Your task to perform on an android device: Open Google Chrome and open the bookmarks view Image 0: 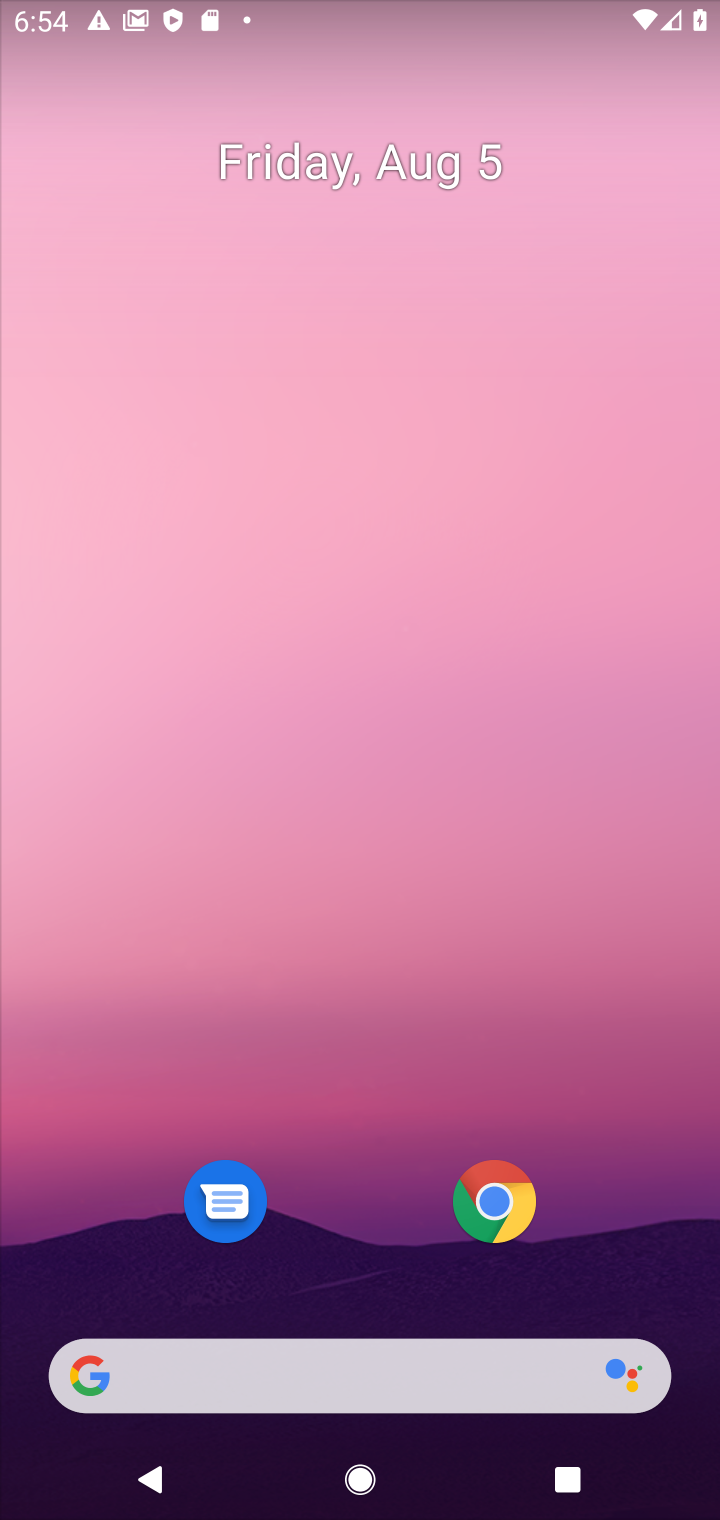
Step 0: press home button
Your task to perform on an android device: Open Google Chrome and open the bookmarks view Image 1: 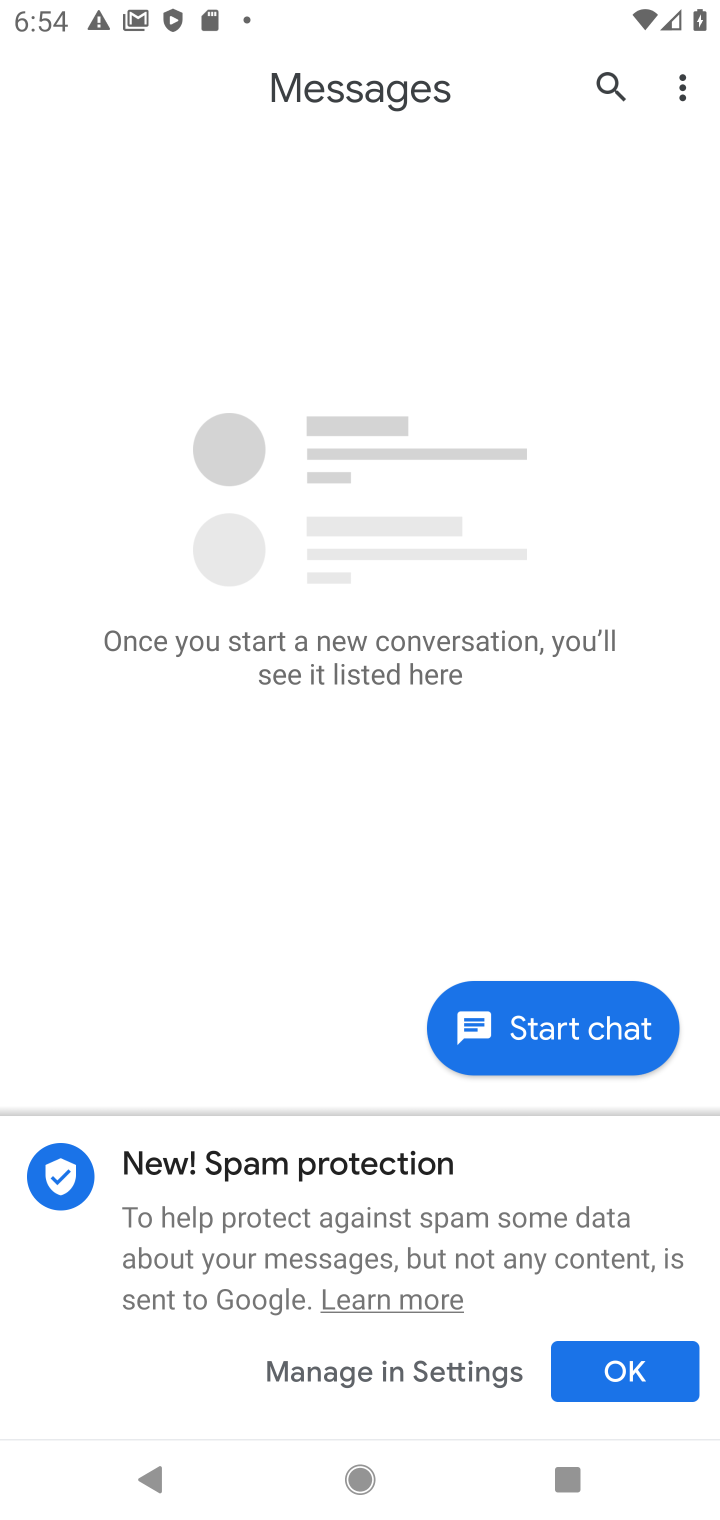
Step 1: click (638, 403)
Your task to perform on an android device: Open Google Chrome and open the bookmarks view Image 2: 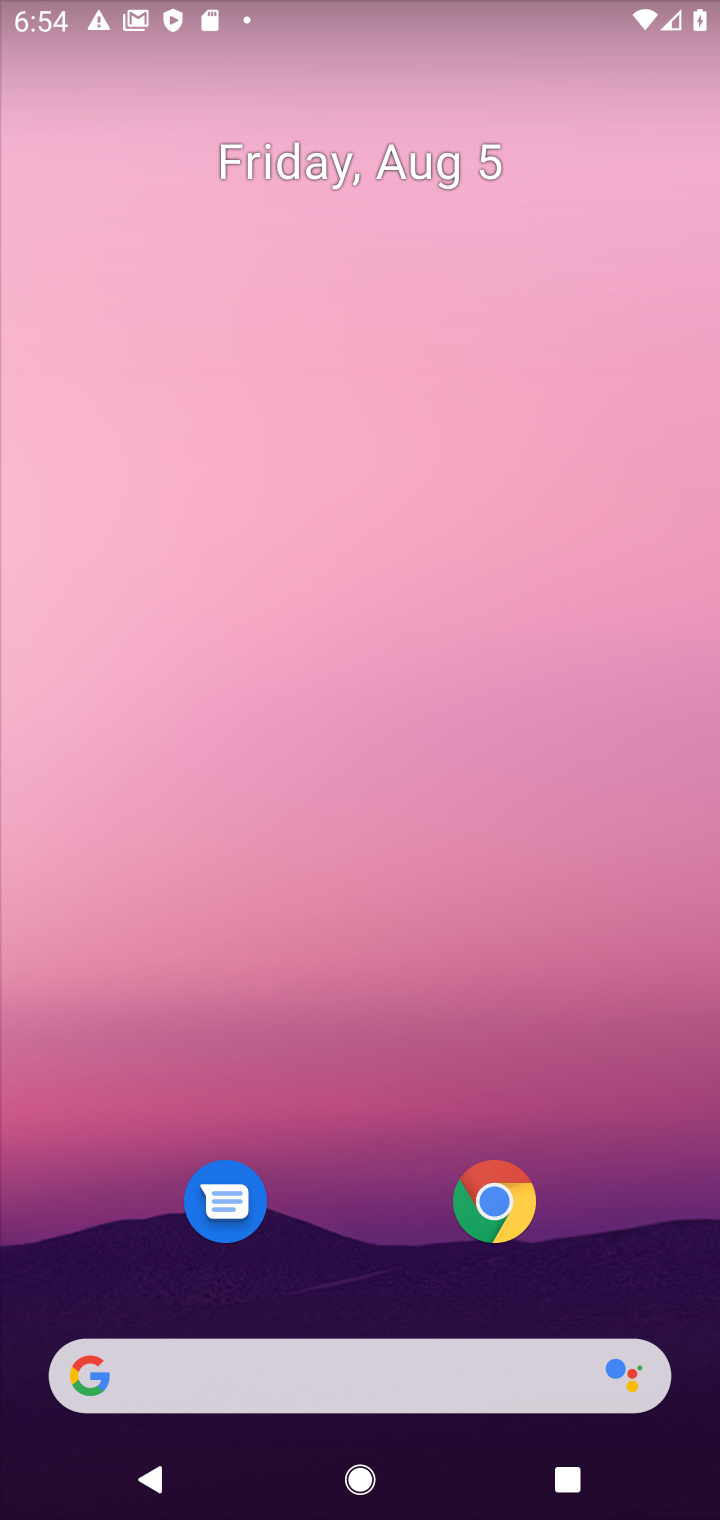
Step 2: drag from (308, 1427) to (486, 251)
Your task to perform on an android device: Open Google Chrome and open the bookmarks view Image 3: 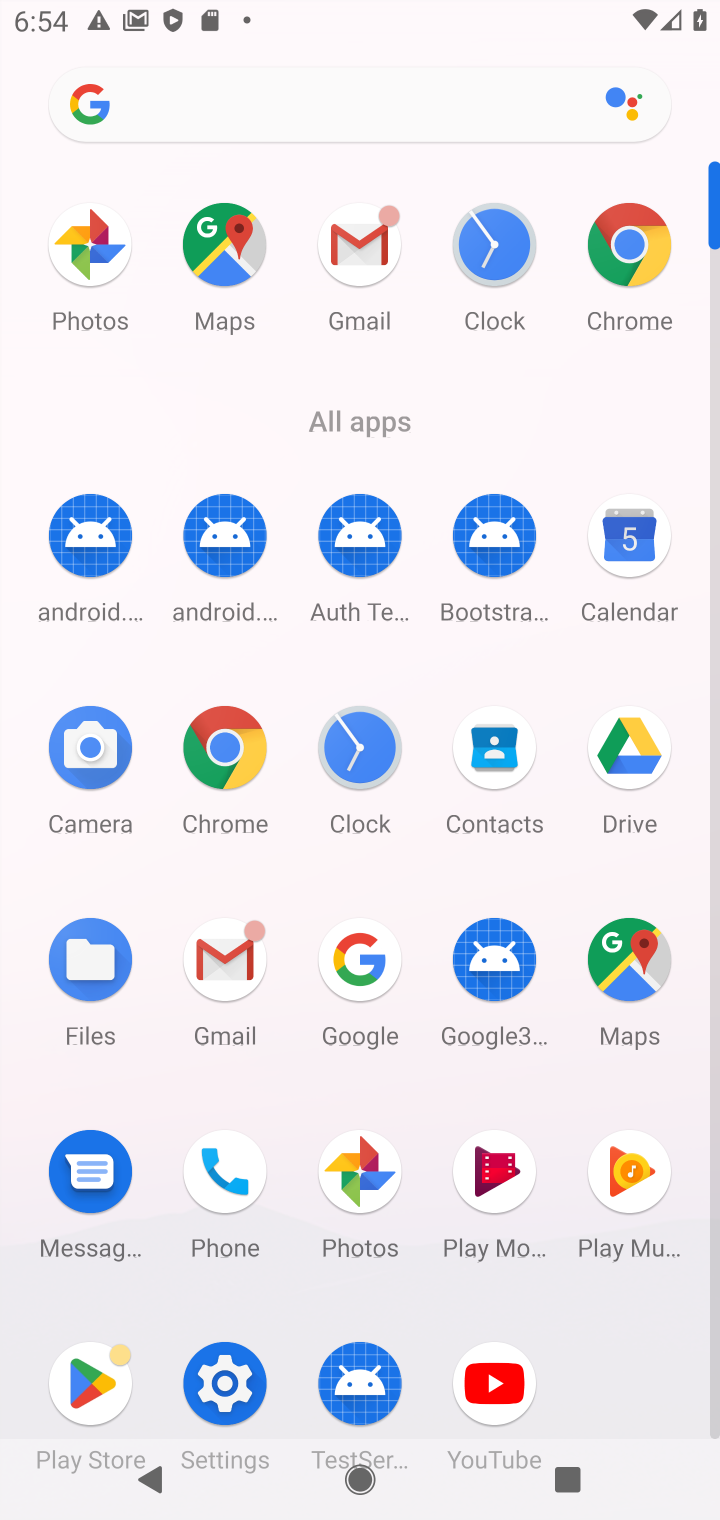
Step 3: click (622, 259)
Your task to perform on an android device: Open Google Chrome and open the bookmarks view Image 4: 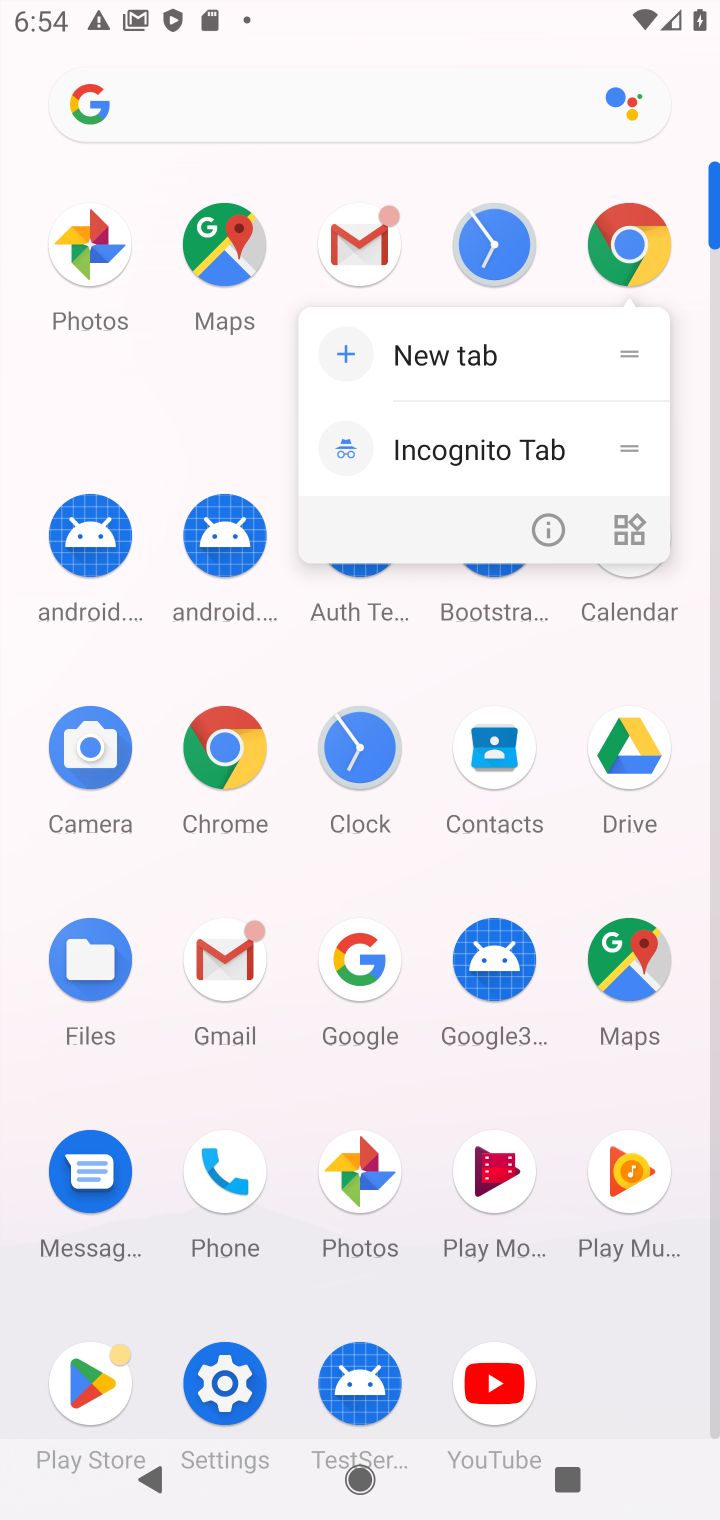
Step 4: click (635, 265)
Your task to perform on an android device: Open Google Chrome and open the bookmarks view Image 5: 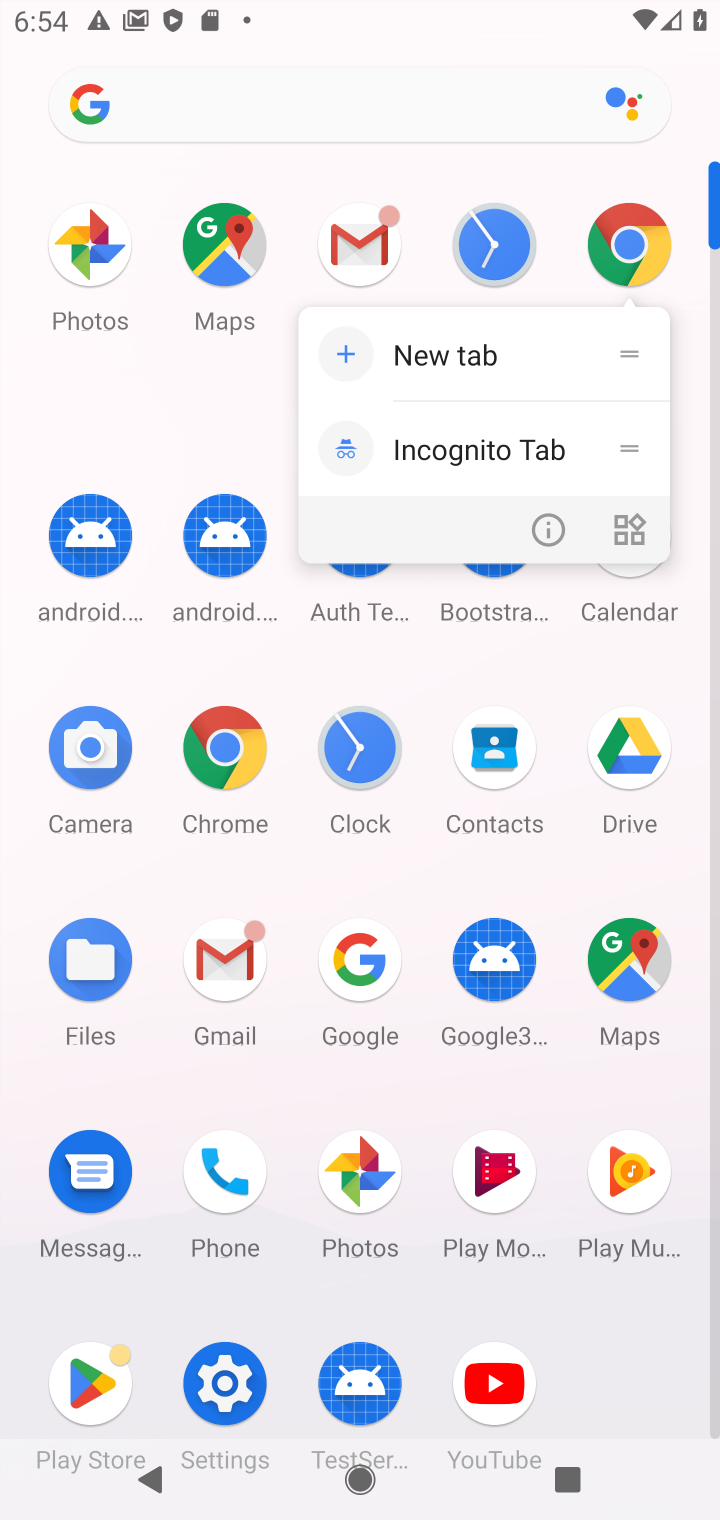
Step 5: click (637, 244)
Your task to perform on an android device: Open Google Chrome and open the bookmarks view Image 6: 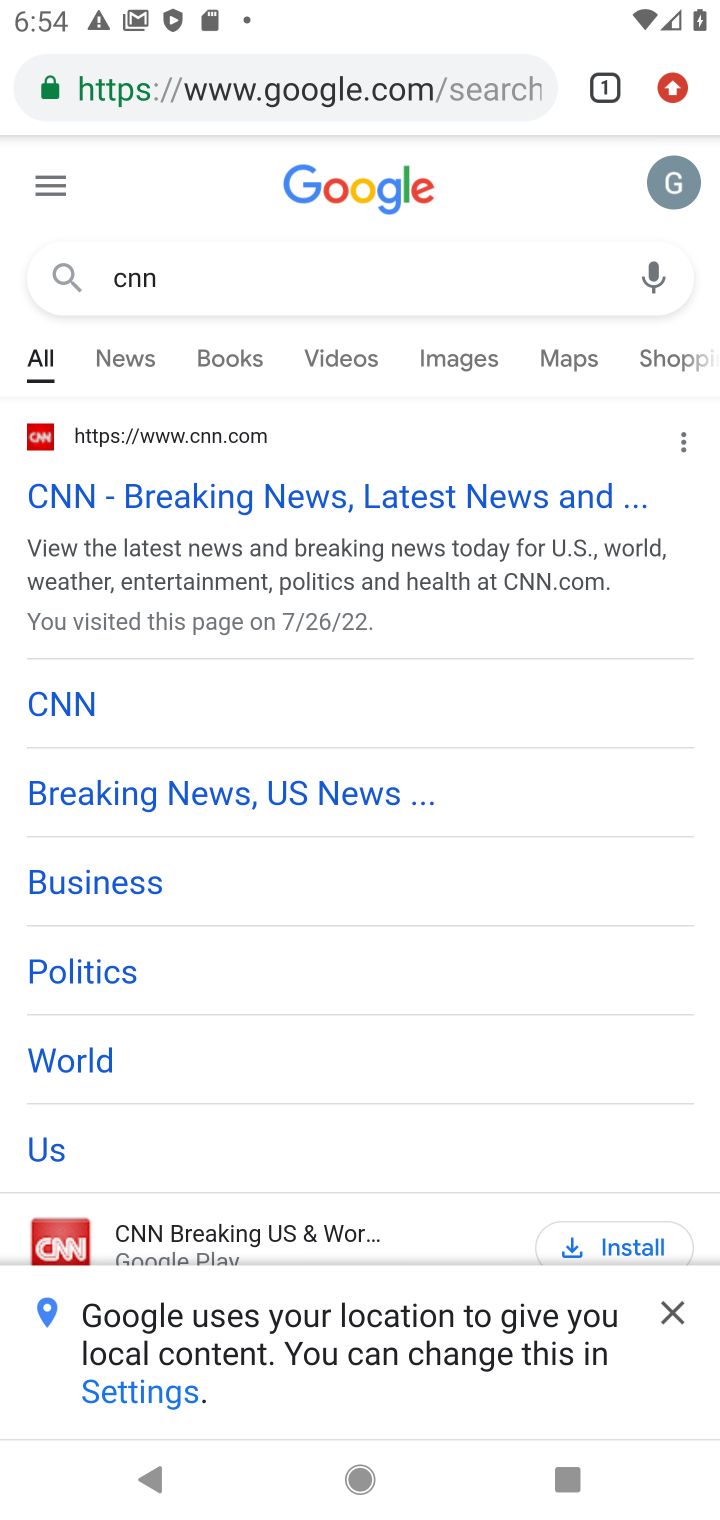
Step 6: click (326, 255)
Your task to perform on an android device: Open Google Chrome and open the bookmarks view Image 7: 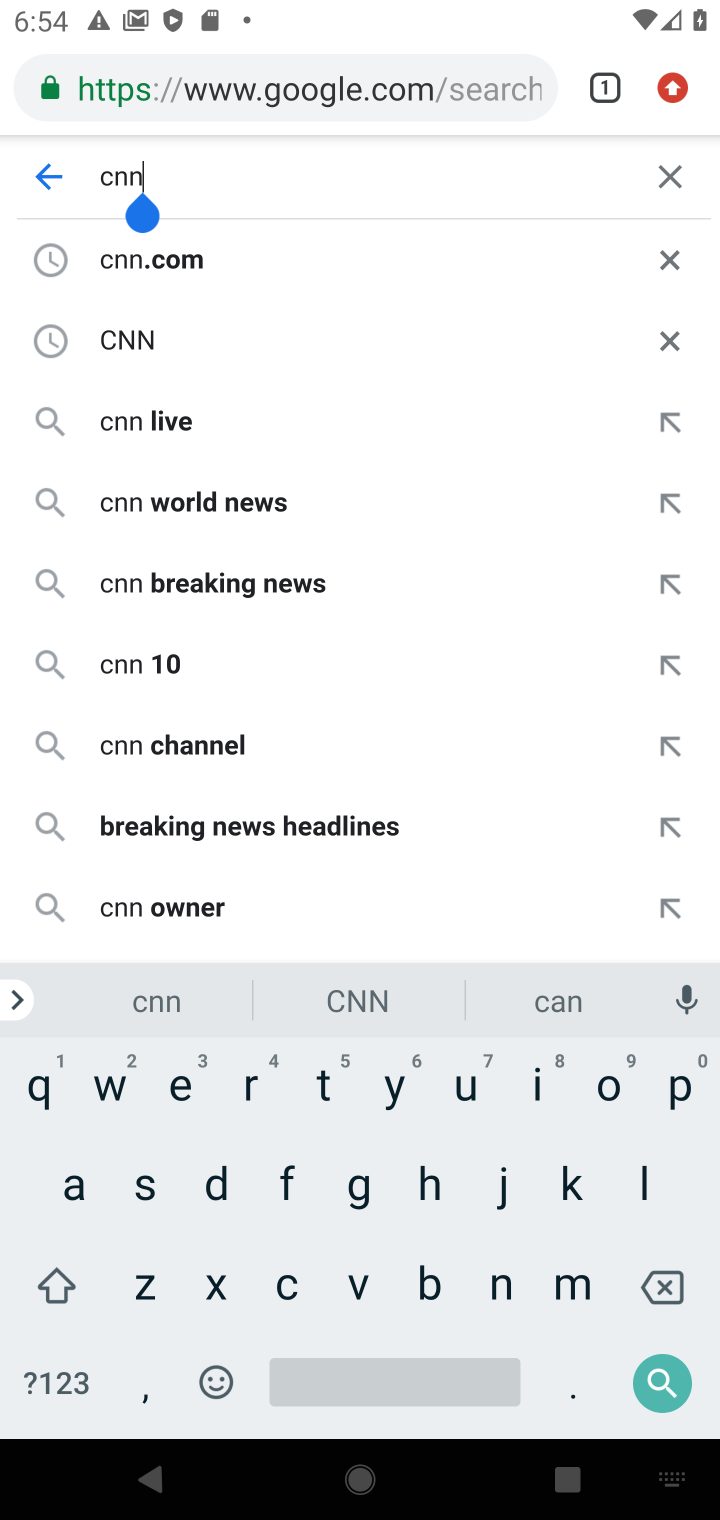
Step 7: click (690, 67)
Your task to perform on an android device: Open Google Chrome and open the bookmarks view Image 8: 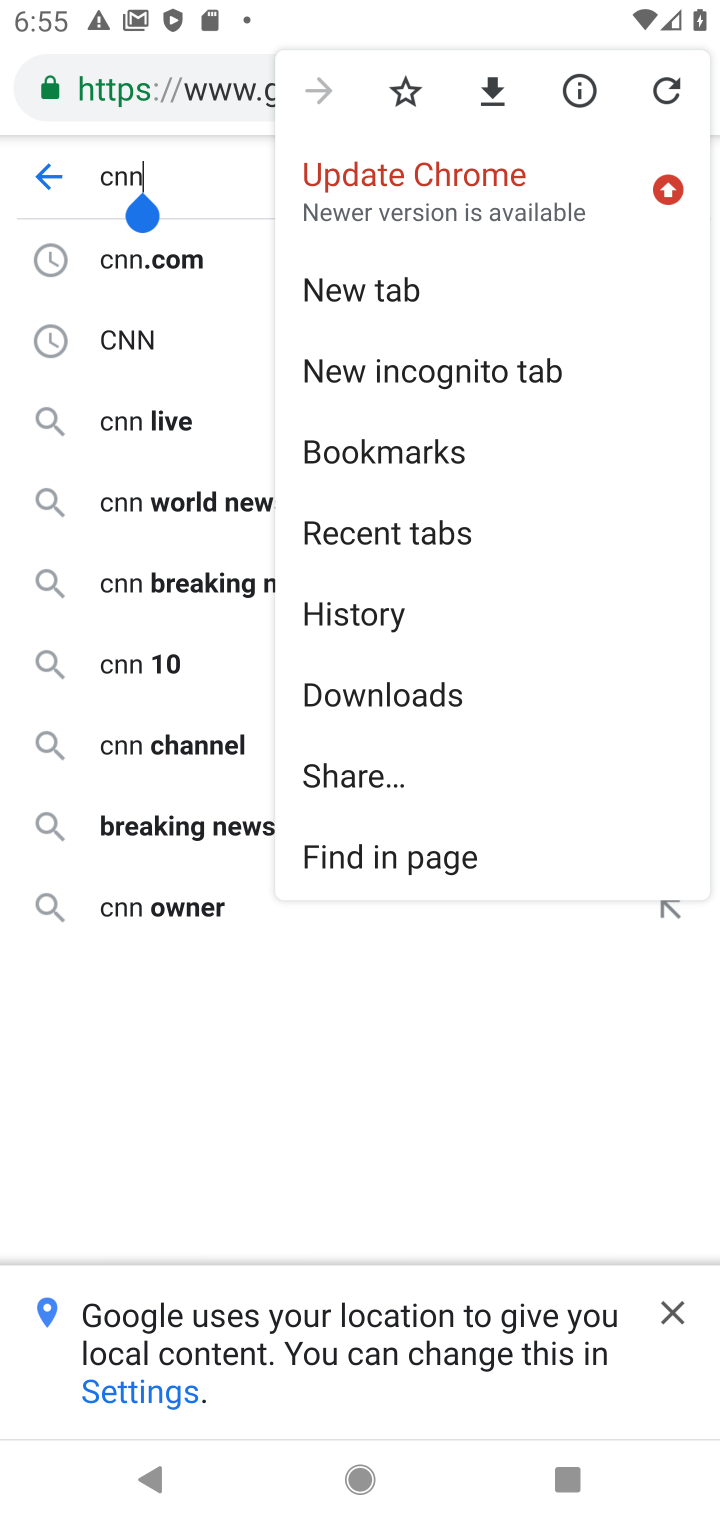
Step 8: click (412, 463)
Your task to perform on an android device: Open Google Chrome and open the bookmarks view Image 9: 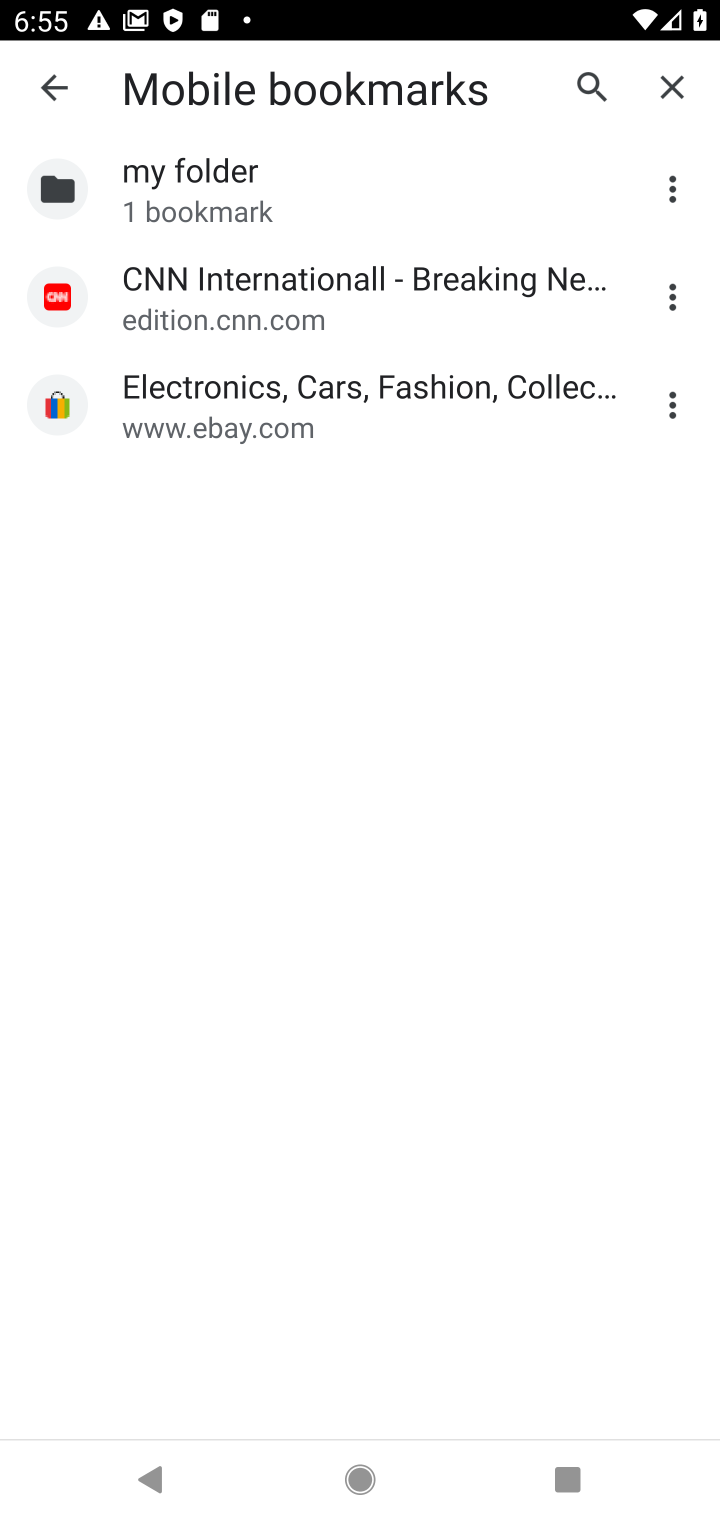
Step 9: task complete